Your task to perform on an android device: View the shopping cart on amazon. Search for "bose quietcomfort 35" on amazon, select the first entry, add it to the cart, then select checkout. Image 0: 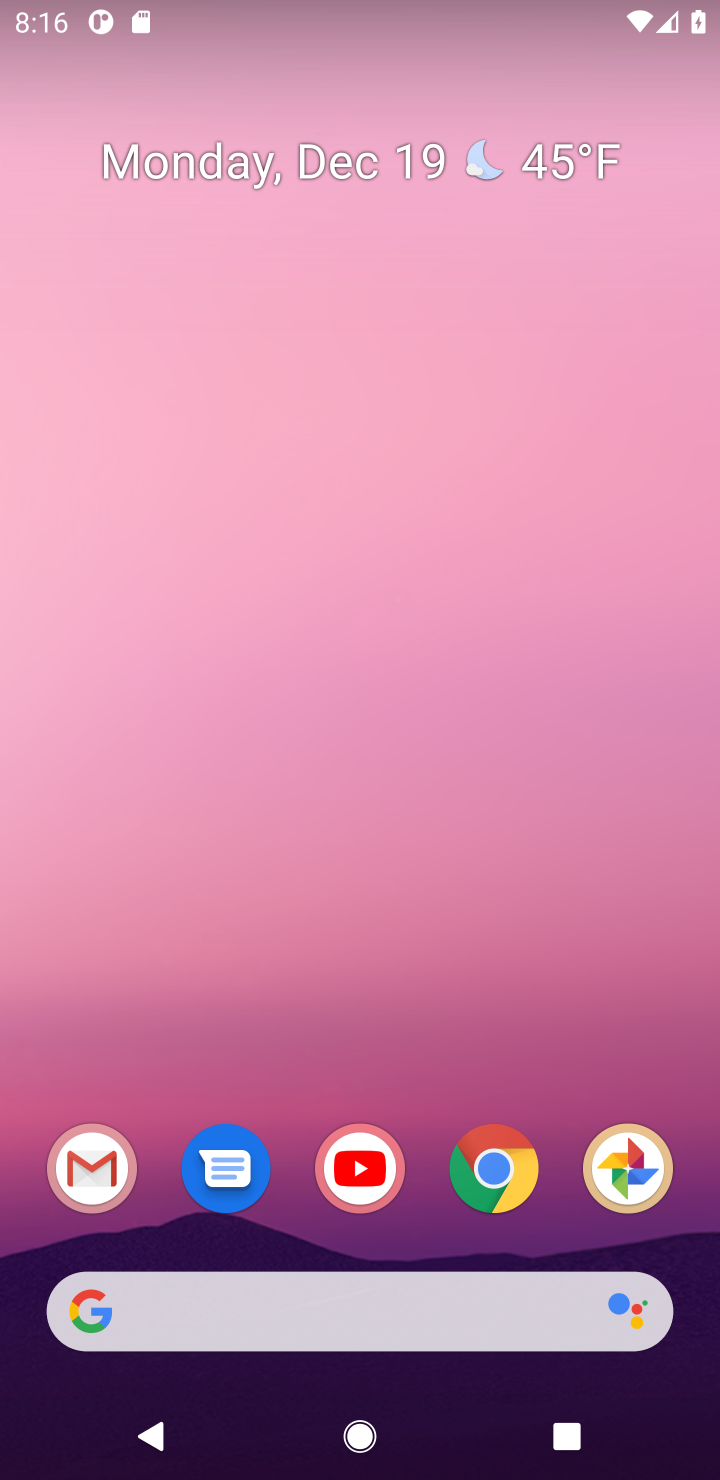
Step 0: click (492, 1169)
Your task to perform on an android device: View the shopping cart on amazon. Search for "bose quietcomfort 35" on amazon, select the first entry, add it to the cart, then select checkout. Image 1: 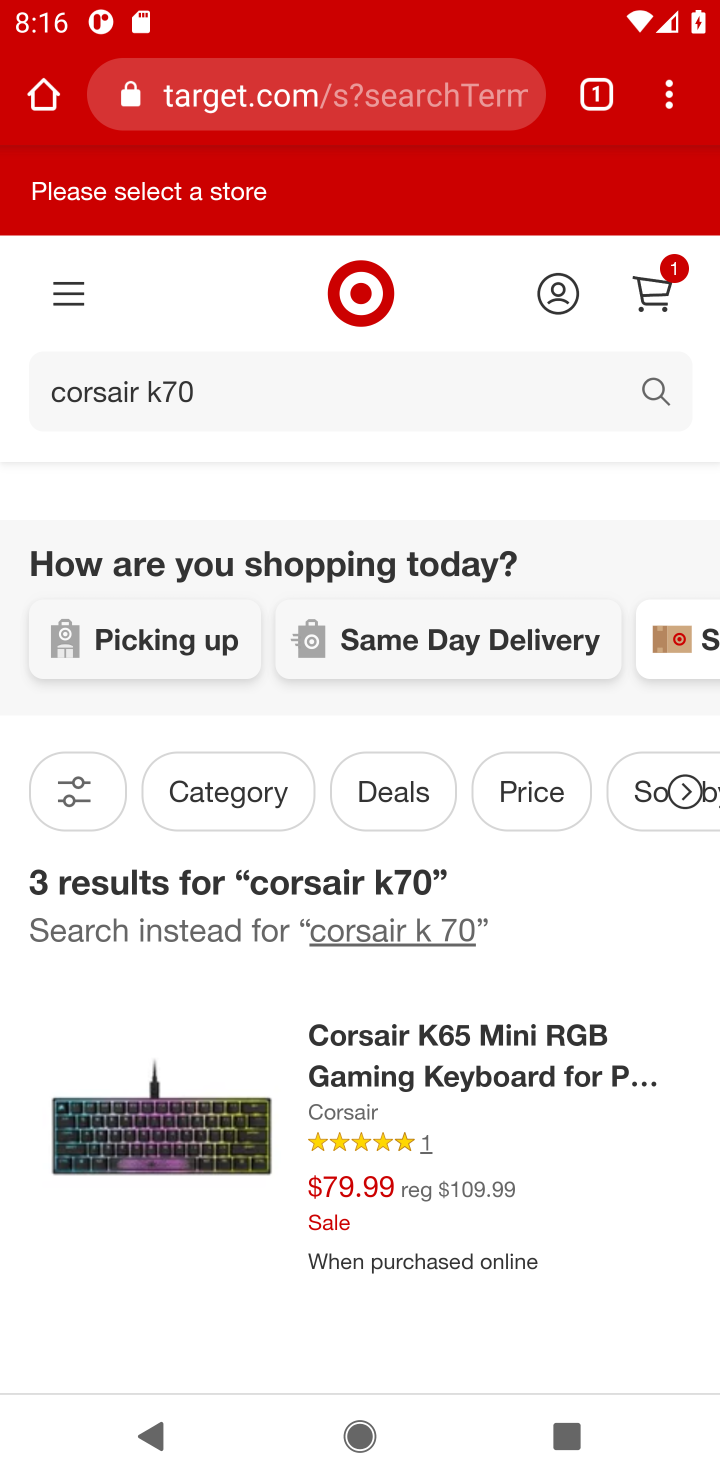
Step 1: click (280, 107)
Your task to perform on an android device: View the shopping cart on amazon. Search for "bose quietcomfort 35" on amazon, select the first entry, add it to the cart, then select checkout. Image 2: 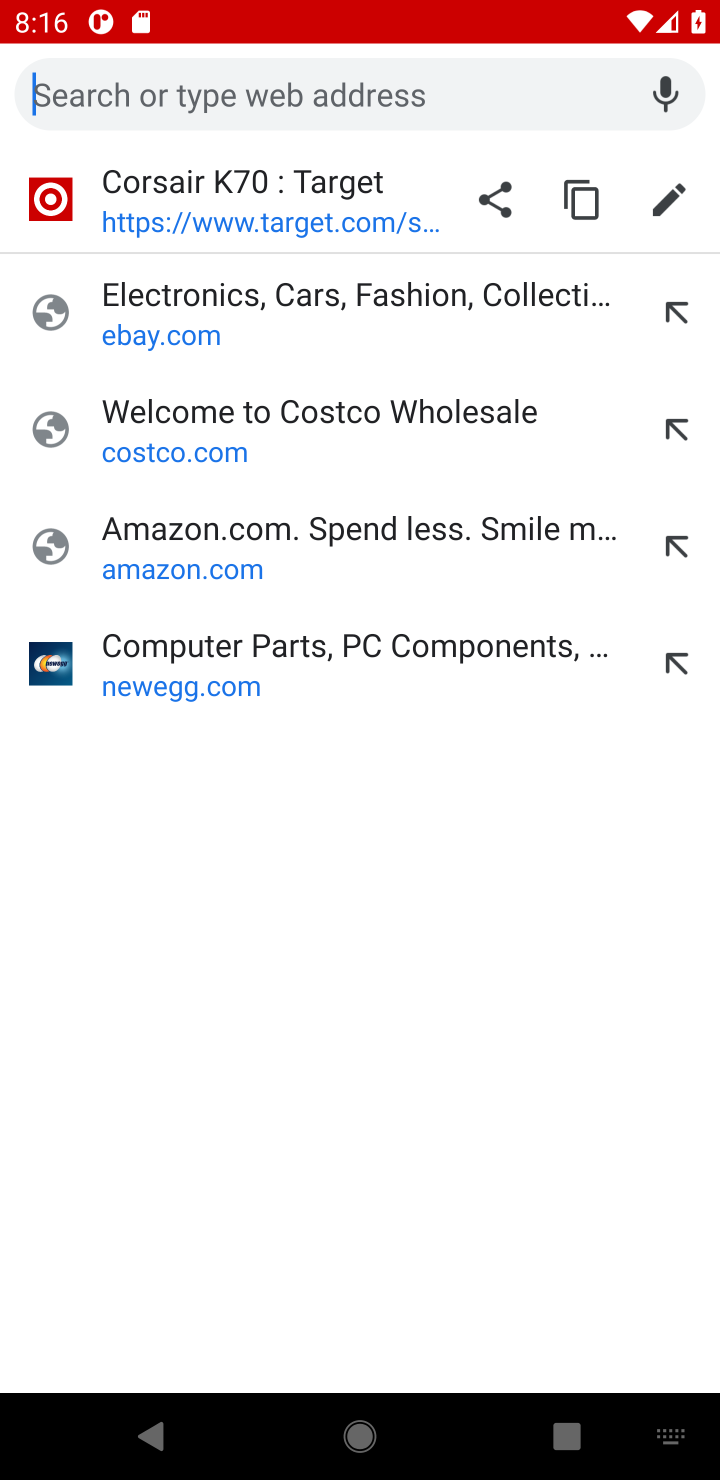
Step 2: click (151, 549)
Your task to perform on an android device: View the shopping cart on amazon. Search for "bose quietcomfort 35" on amazon, select the first entry, add it to the cart, then select checkout. Image 3: 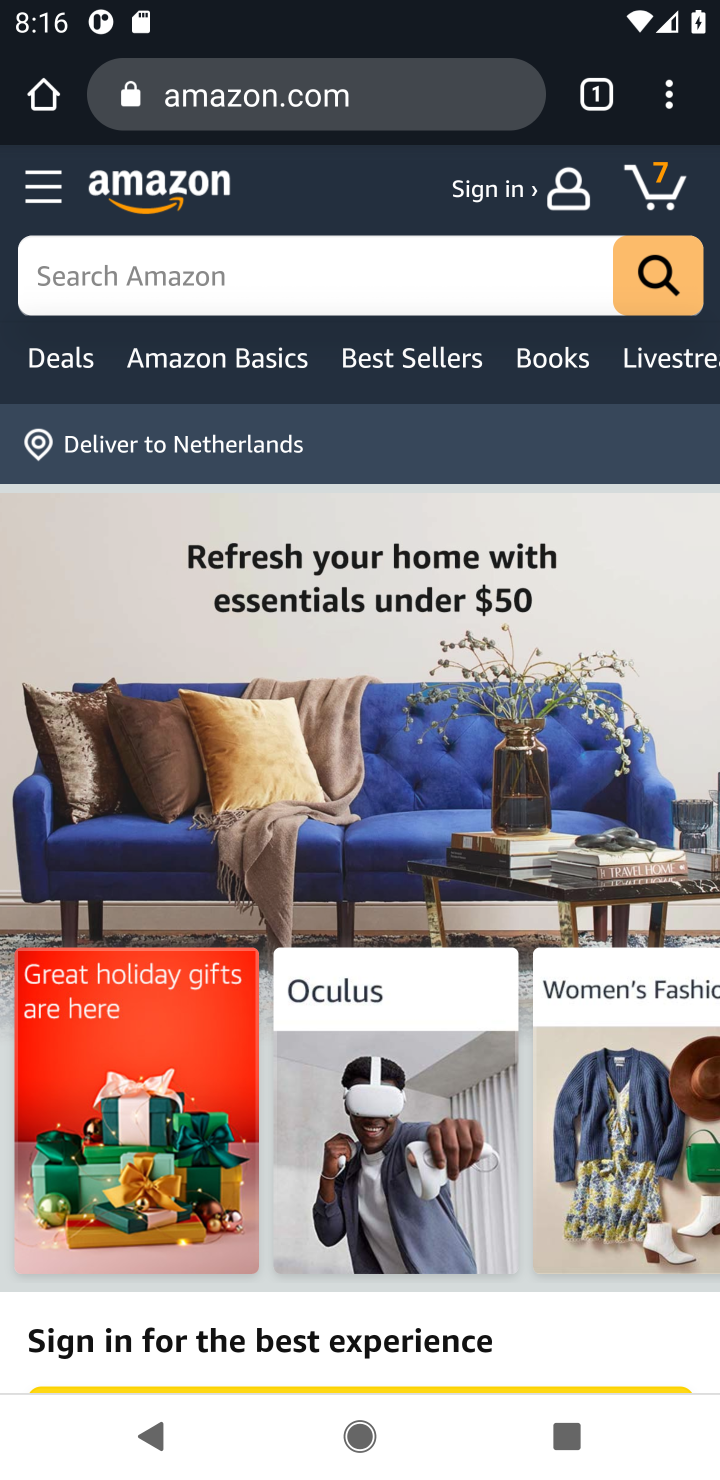
Step 3: click (661, 199)
Your task to perform on an android device: View the shopping cart on amazon. Search for "bose quietcomfort 35" on amazon, select the first entry, add it to the cart, then select checkout. Image 4: 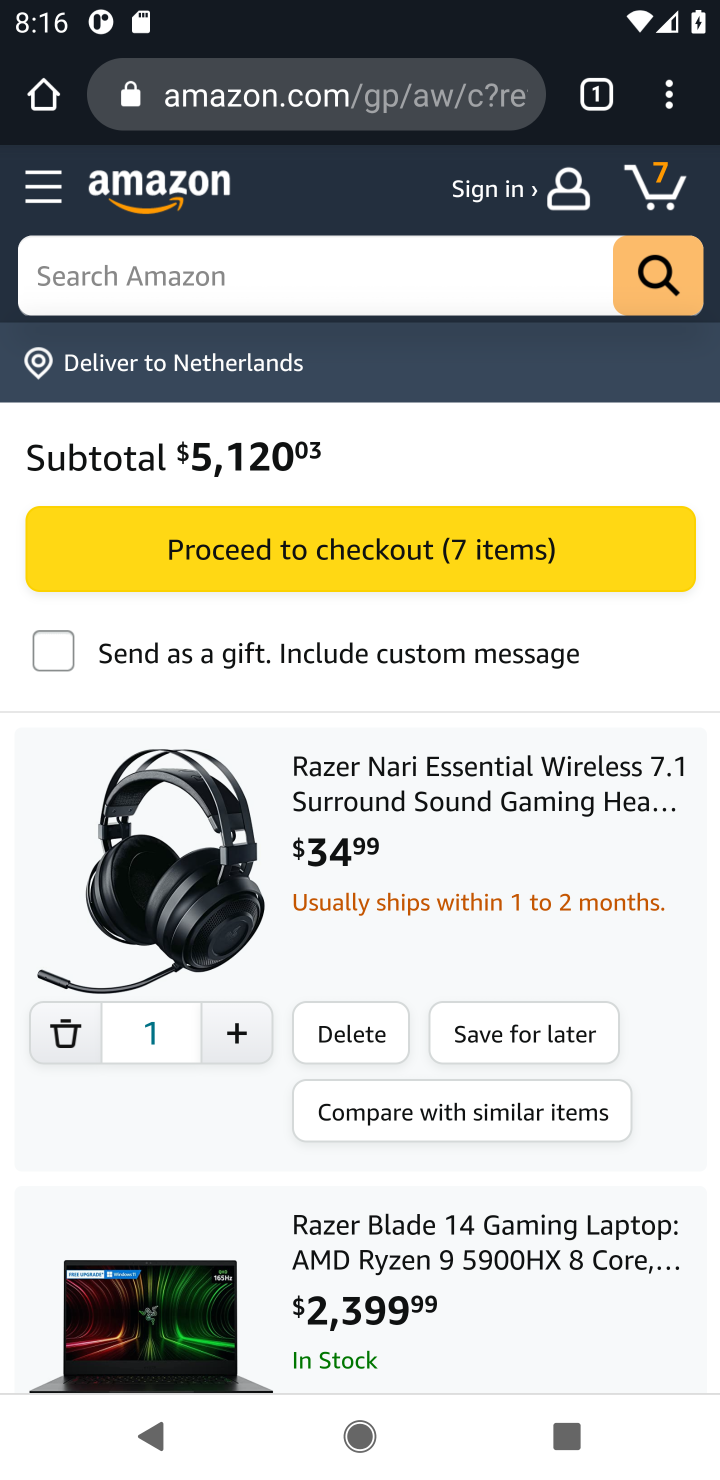
Step 4: click (154, 282)
Your task to perform on an android device: View the shopping cart on amazon. Search for "bose quietcomfort 35" on amazon, select the first entry, add it to the cart, then select checkout. Image 5: 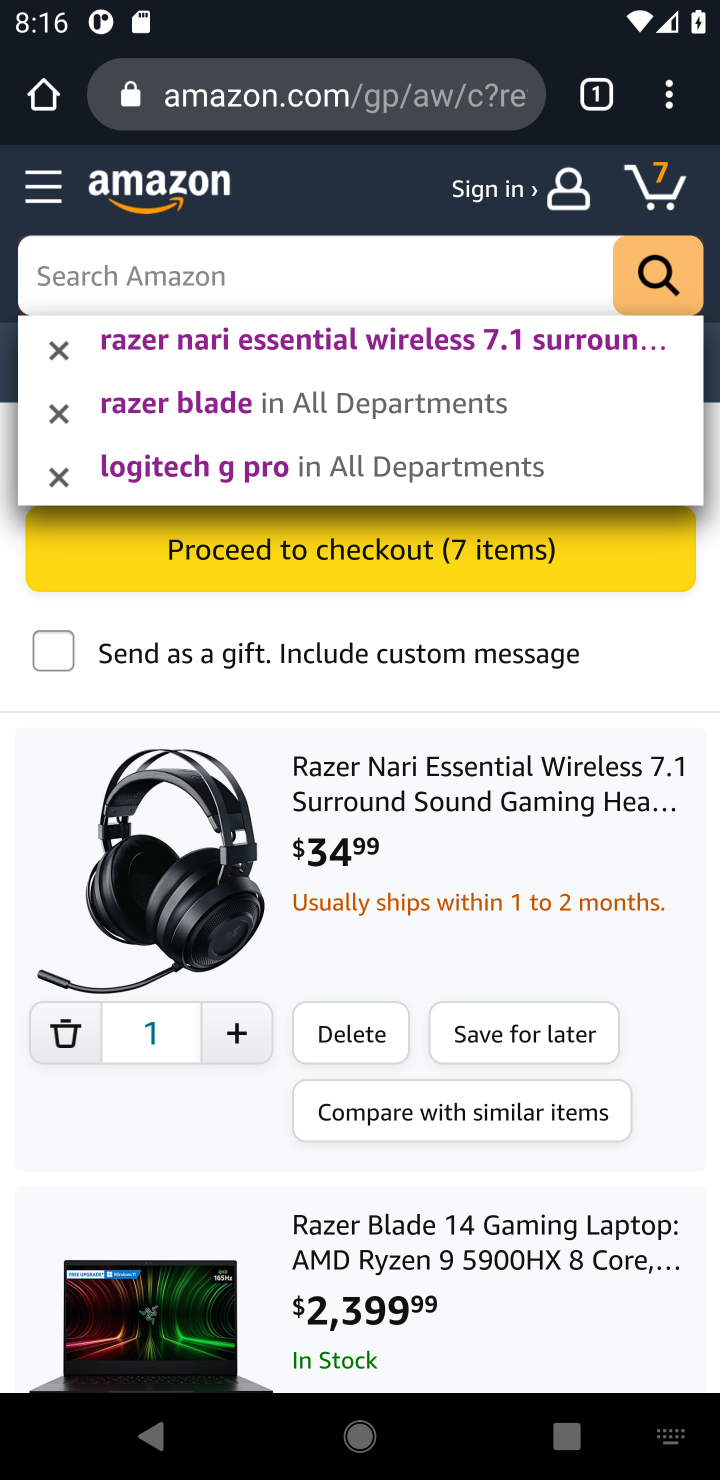
Step 5: type "bose quietcomfort 35"
Your task to perform on an android device: View the shopping cart on amazon. Search for "bose quietcomfort 35" on amazon, select the first entry, add it to the cart, then select checkout. Image 6: 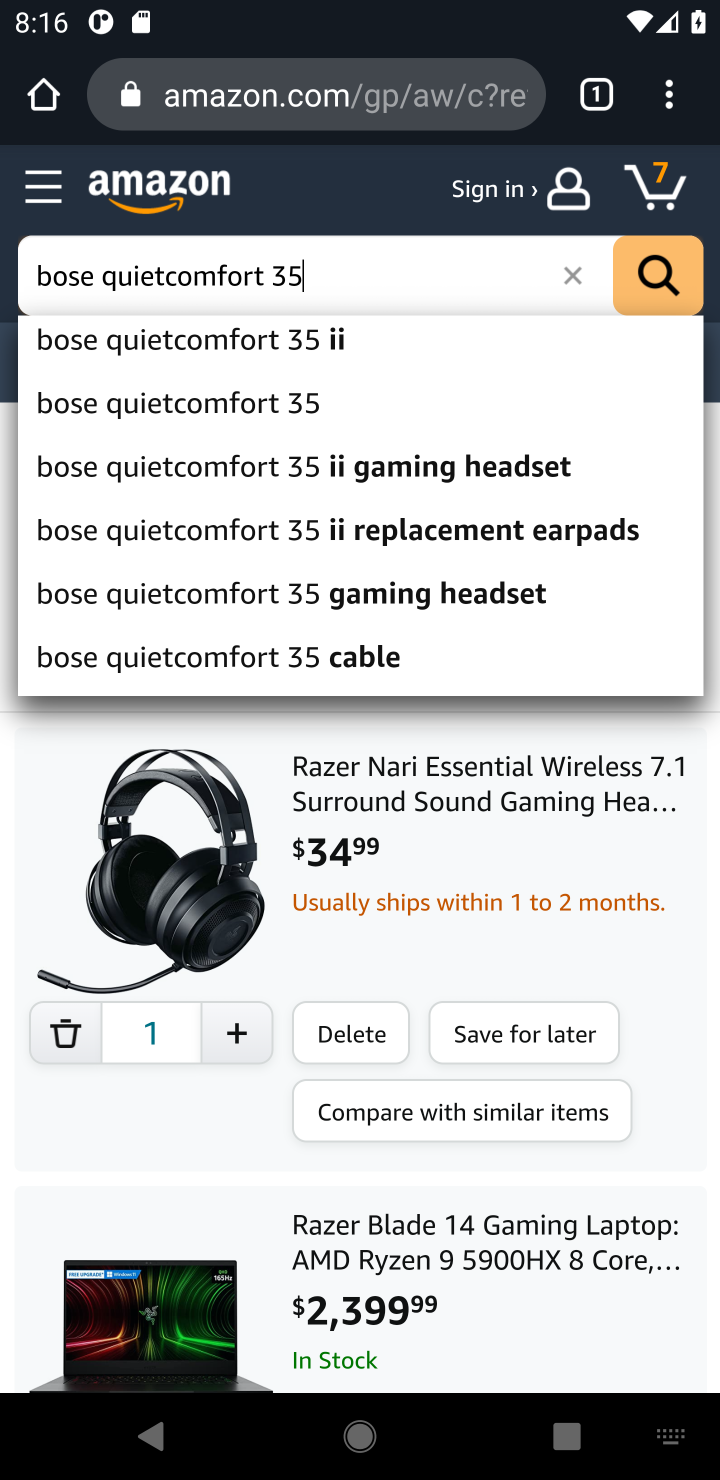
Step 6: click (145, 405)
Your task to perform on an android device: View the shopping cart on amazon. Search for "bose quietcomfort 35" on amazon, select the first entry, add it to the cart, then select checkout. Image 7: 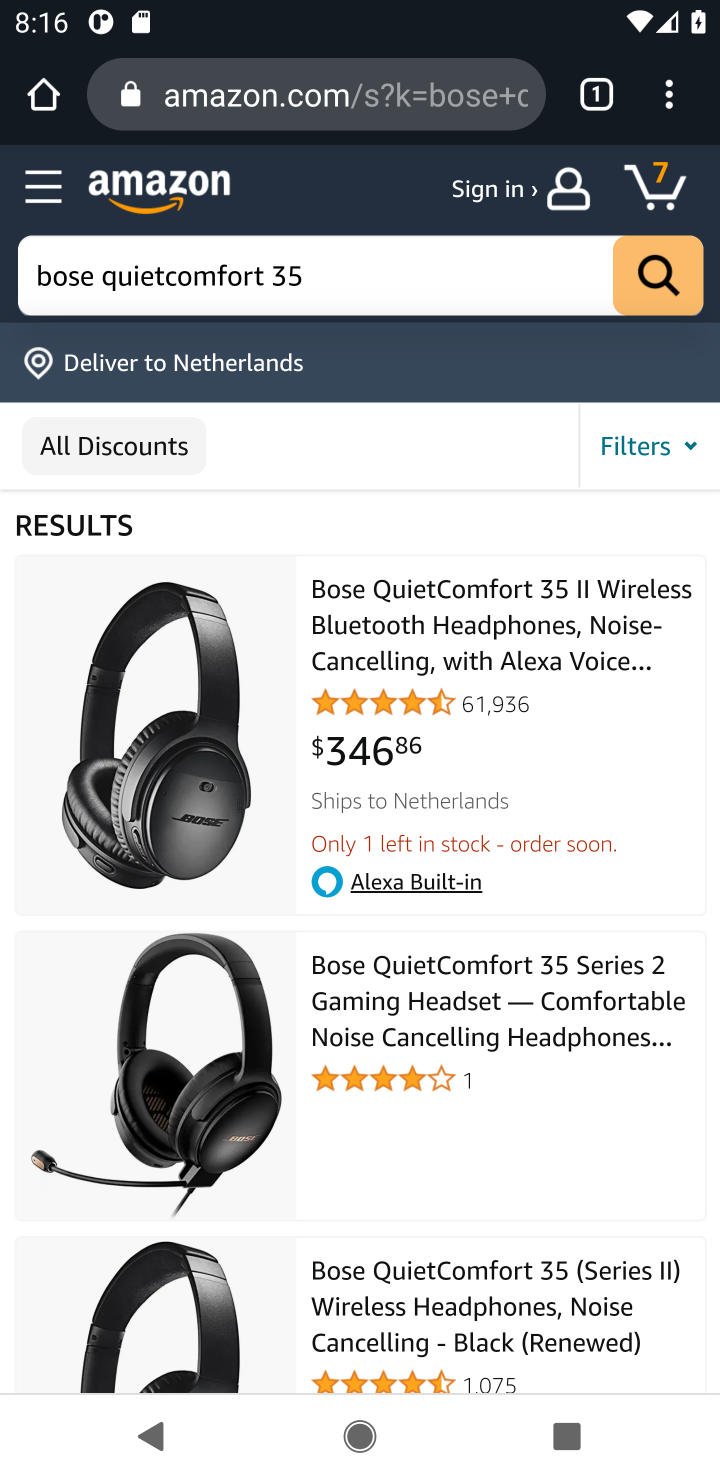
Step 7: click (362, 648)
Your task to perform on an android device: View the shopping cart on amazon. Search for "bose quietcomfort 35" on amazon, select the first entry, add it to the cart, then select checkout. Image 8: 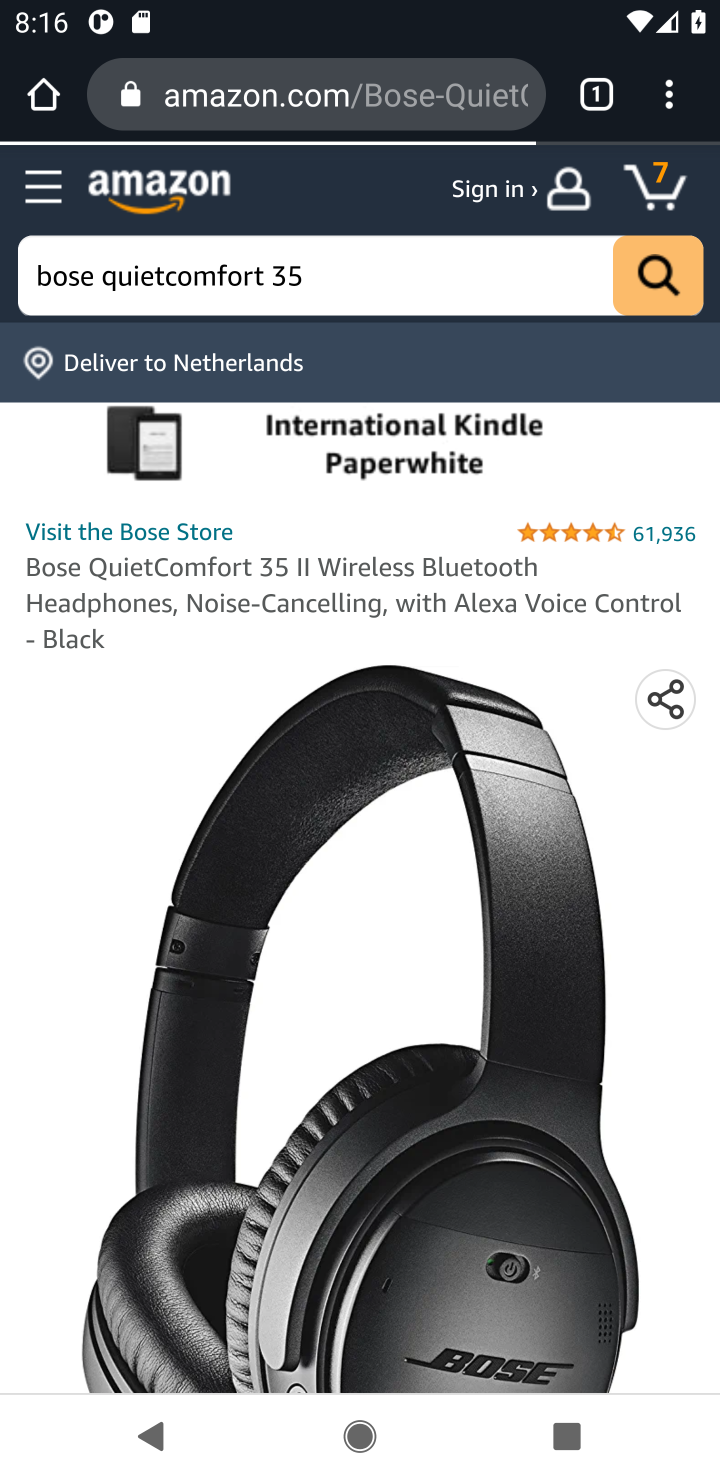
Step 8: drag from (294, 923) to (231, 328)
Your task to perform on an android device: View the shopping cart on amazon. Search for "bose quietcomfort 35" on amazon, select the first entry, add it to the cart, then select checkout. Image 9: 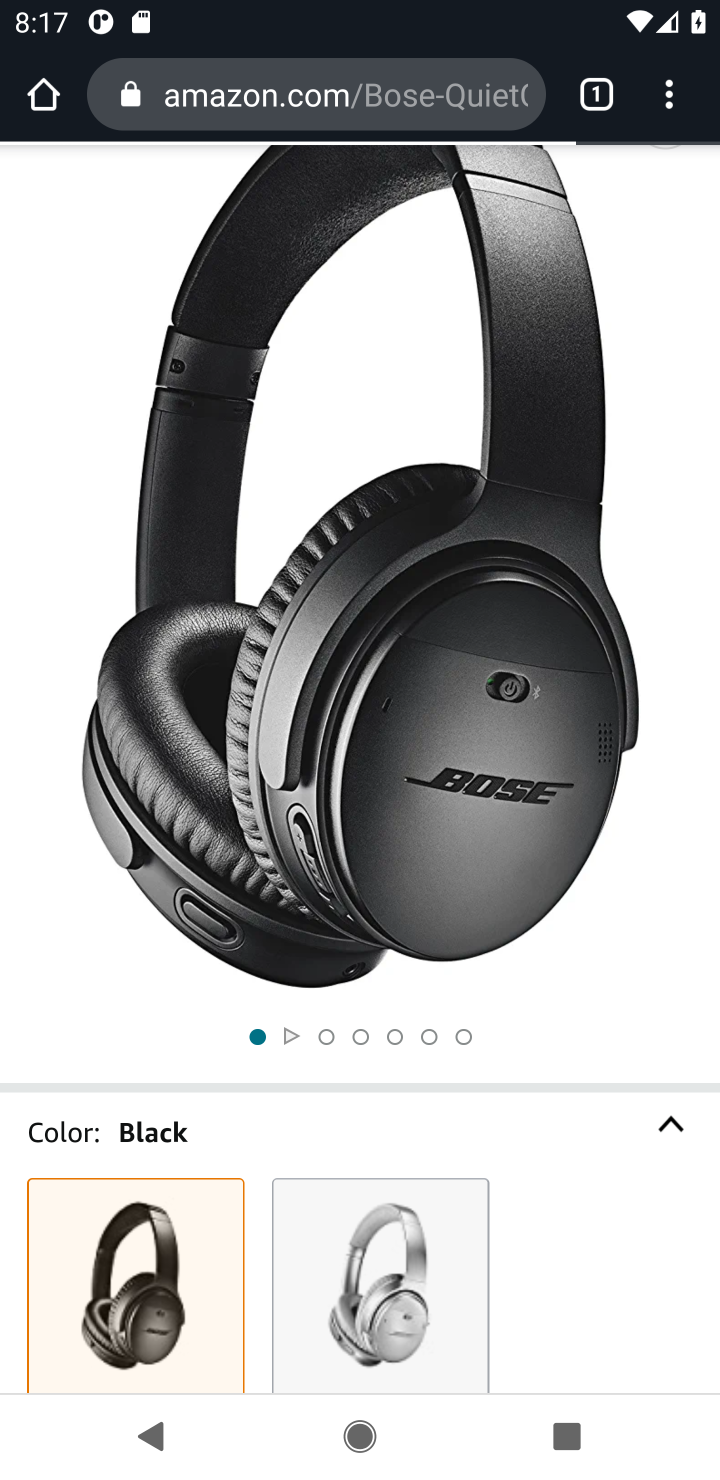
Step 9: drag from (361, 1081) to (243, 249)
Your task to perform on an android device: View the shopping cart on amazon. Search for "bose quietcomfort 35" on amazon, select the first entry, add it to the cart, then select checkout. Image 10: 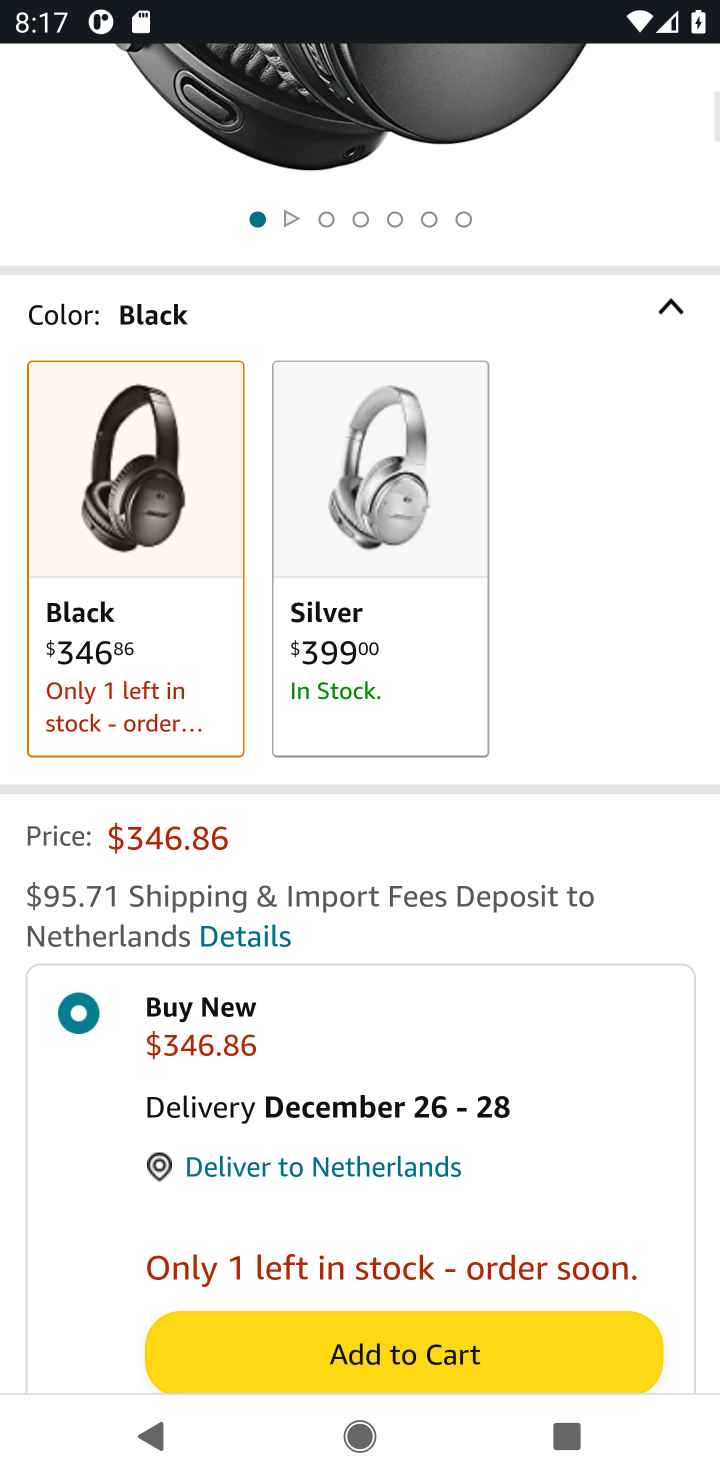
Step 10: drag from (361, 1101) to (335, 494)
Your task to perform on an android device: View the shopping cart on amazon. Search for "bose quietcomfort 35" on amazon, select the first entry, add it to the cart, then select checkout. Image 11: 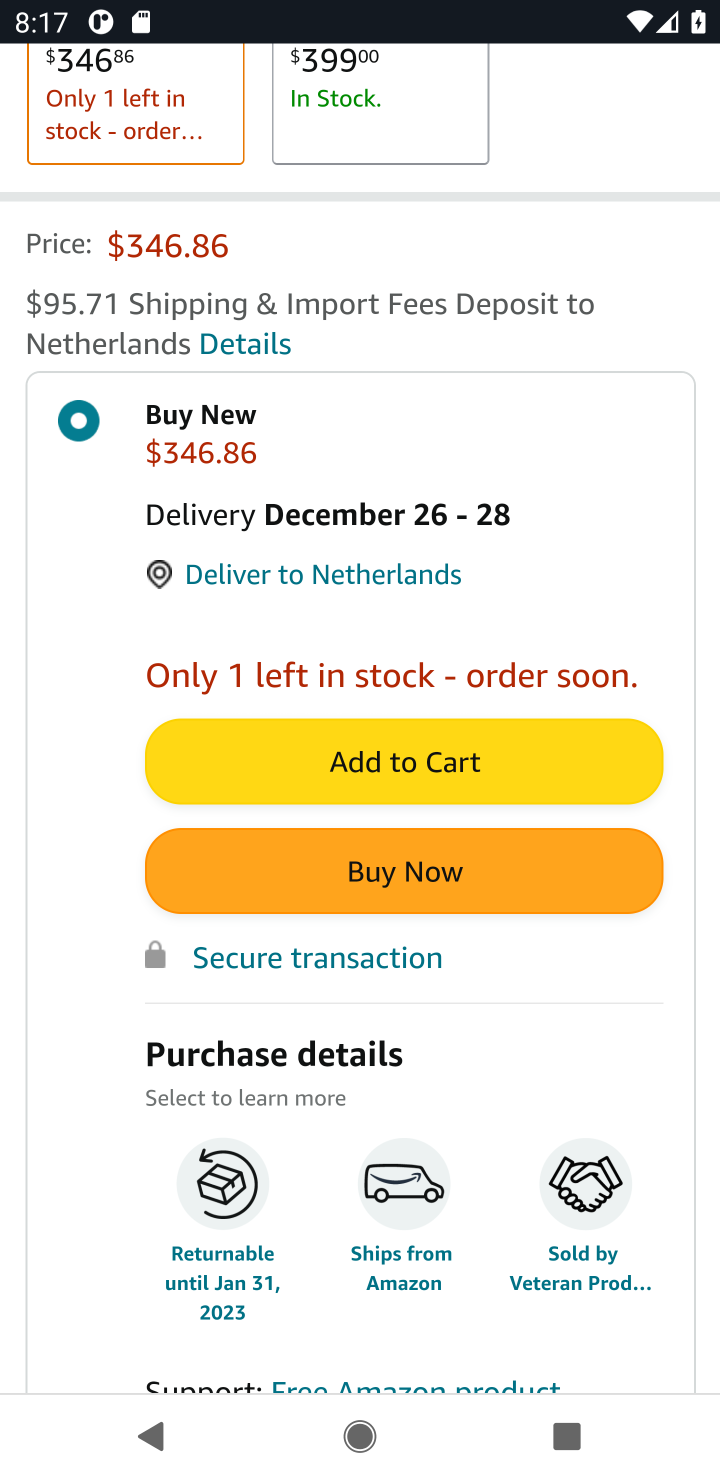
Step 11: click (367, 771)
Your task to perform on an android device: View the shopping cart on amazon. Search for "bose quietcomfort 35" on amazon, select the first entry, add it to the cart, then select checkout. Image 12: 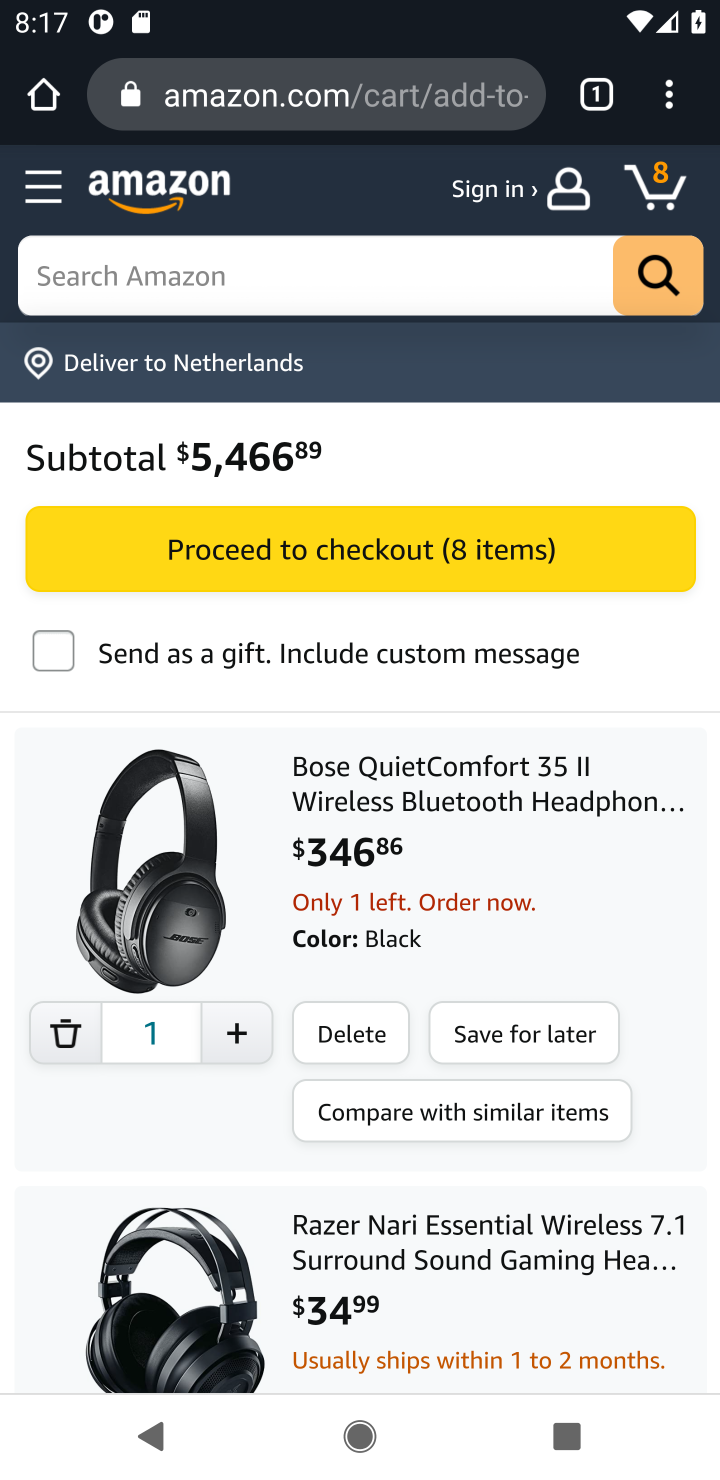
Step 12: click (325, 559)
Your task to perform on an android device: View the shopping cart on amazon. Search for "bose quietcomfort 35" on amazon, select the first entry, add it to the cart, then select checkout. Image 13: 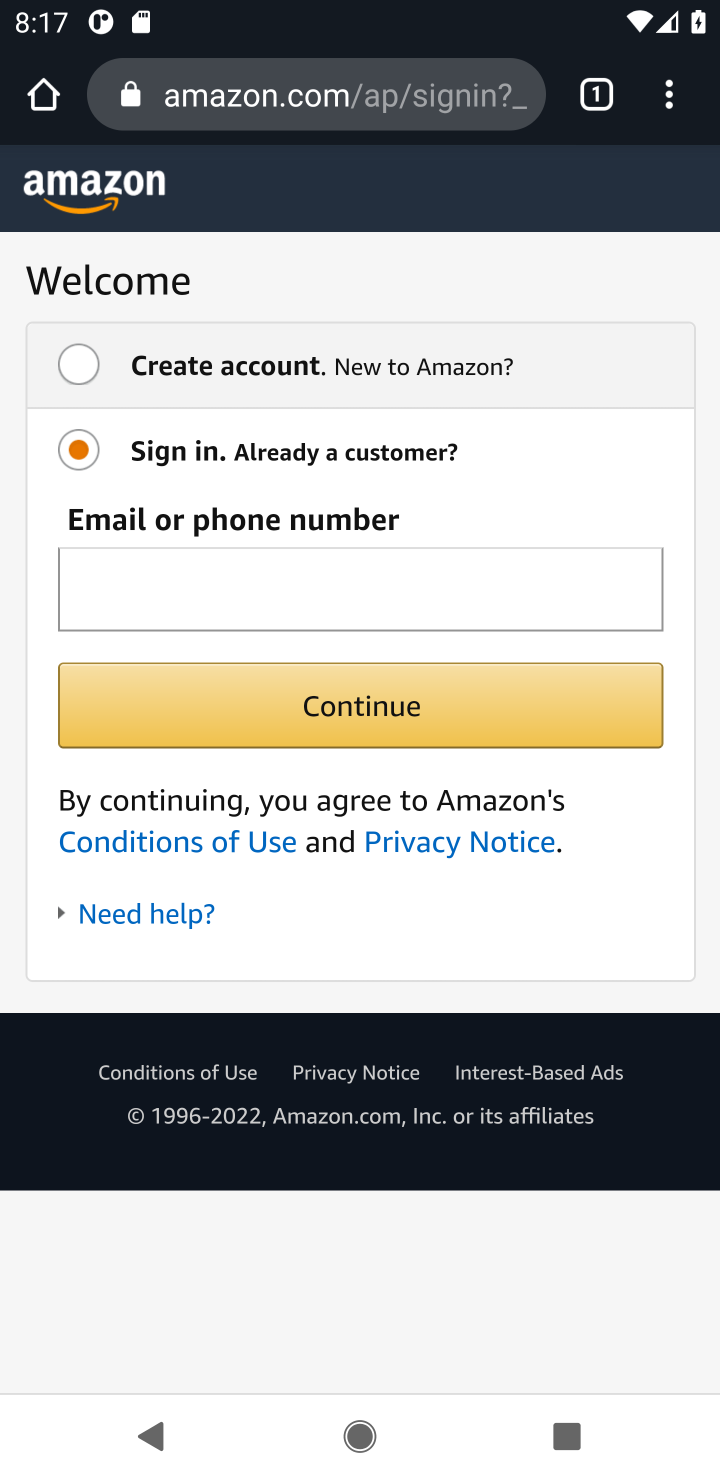
Step 13: task complete